Your task to perform on an android device: Open notification settings Image 0: 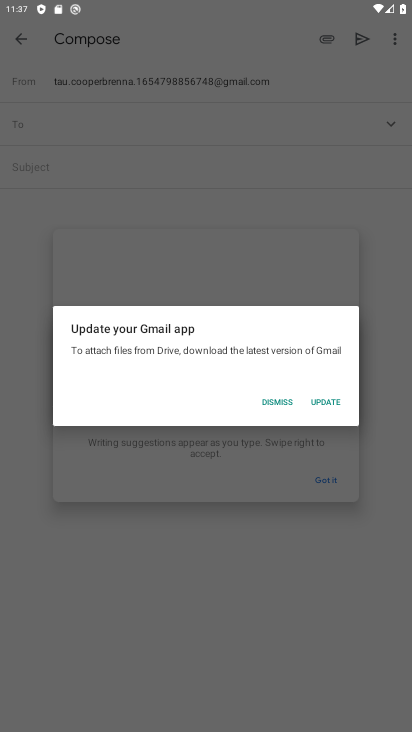
Step 0: press home button
Your task to perform on an android device: Open notification settings Image 1: 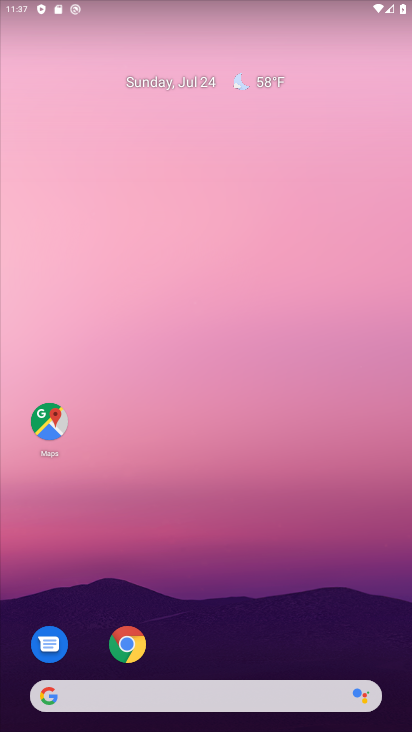
Step 1: drag from (269, 623) to (226, 128)
Your task to perform on an android device: Open notification settings Image 2: 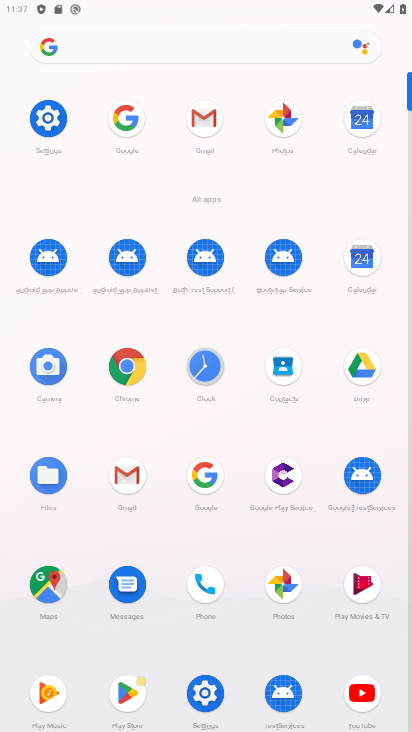
Step 2: click (43, 106)
Your task to perform on an android device: Open notification settings Image 3: 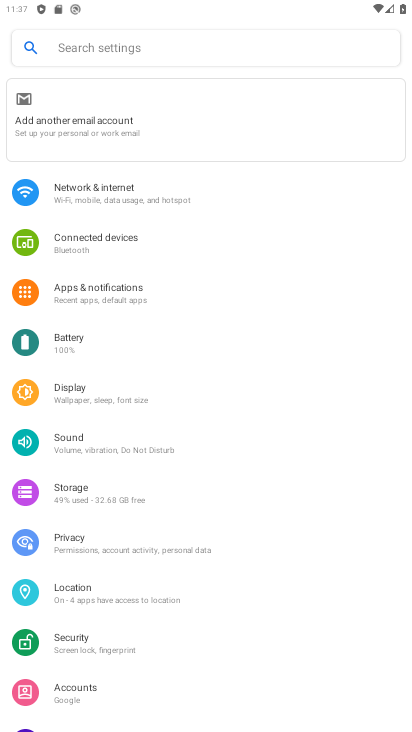
Step 3: click (113, 286)
Your task to perform on an android device: Open notification settings Image 4: 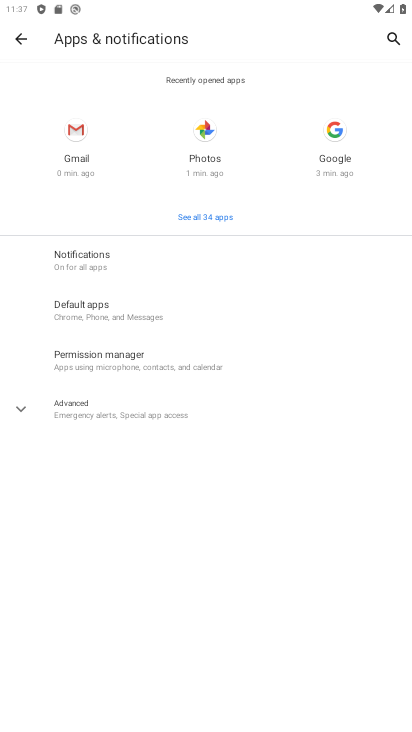
Step 4: click (99, 259)
Your task to perform on an android device: Open notification settings Image 5: 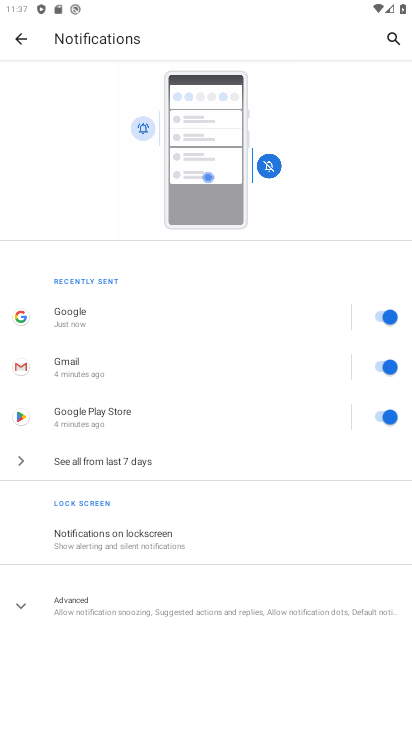
Step 5: task complete